Your task to perform on an android device: toggle location history Image 0: 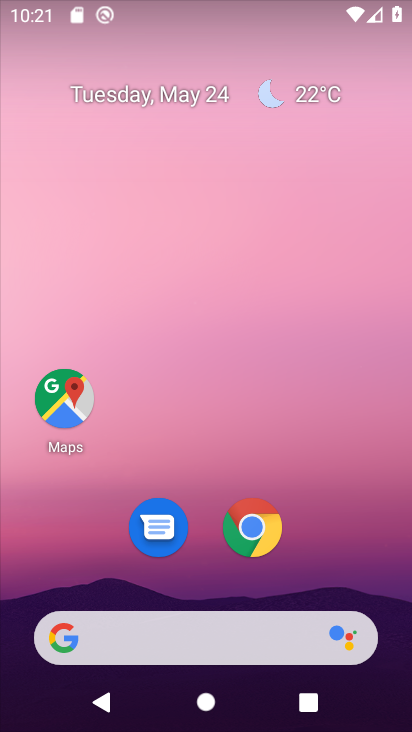
Step 0: press home button
Your task to perform on an android device: toggle location history Image 1: 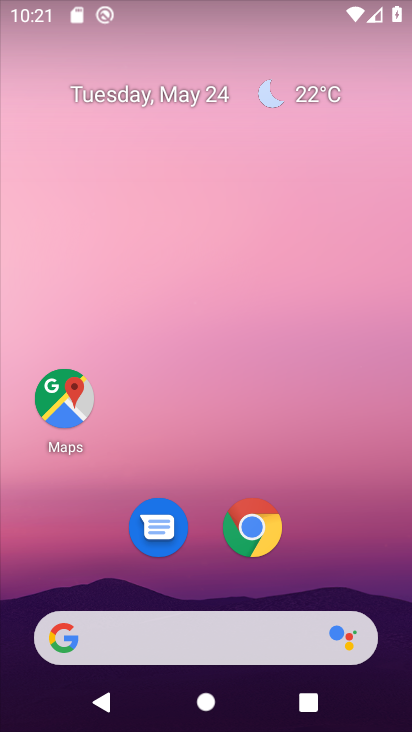
Step 1: click (75, 398)
Your task to perform on an android device: toggle location history Image 2: 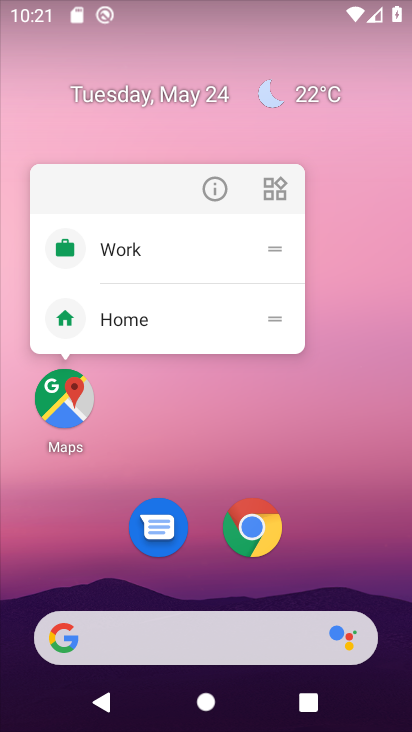
Step 2: click (75, 400)
Your task to perform on an android device: toggle location history Image 3: 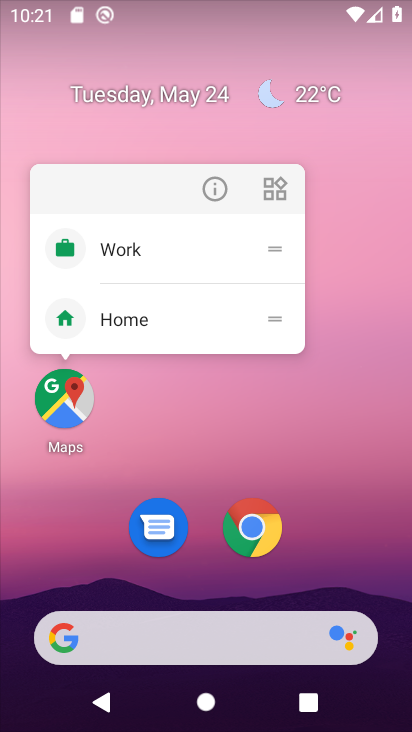
Step 3: click (69, 408)
Your task to perform on an android device: toggle location history Image 4: 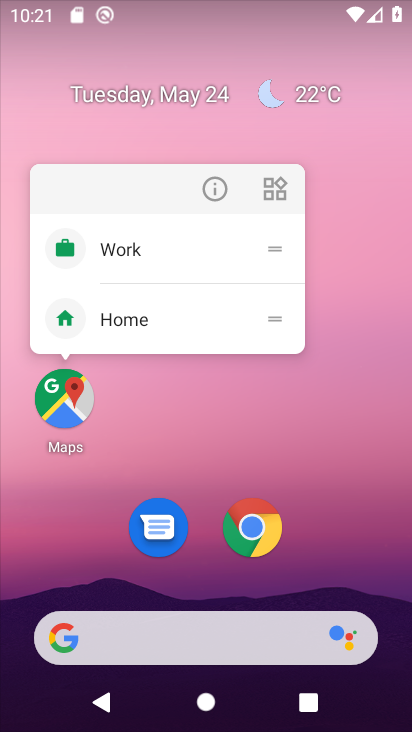
Step 4: click (61, 410)
Your task to perform on an android device: toggle location history Image 5: 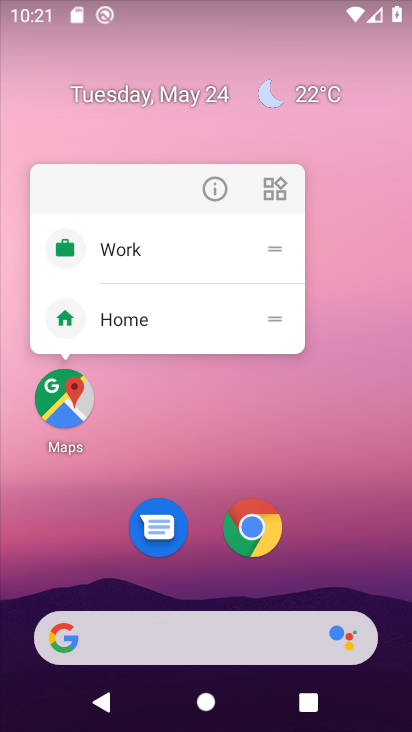
Step 5: click (70, 403)
Your task to perform on an android device: toggle location history Image 6: 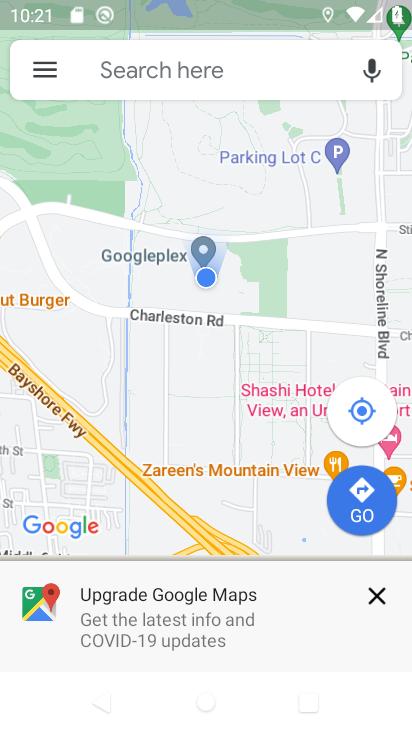
Step 6: click (41, 67)
Your task to perform on an android device: toggle location history Image 7: 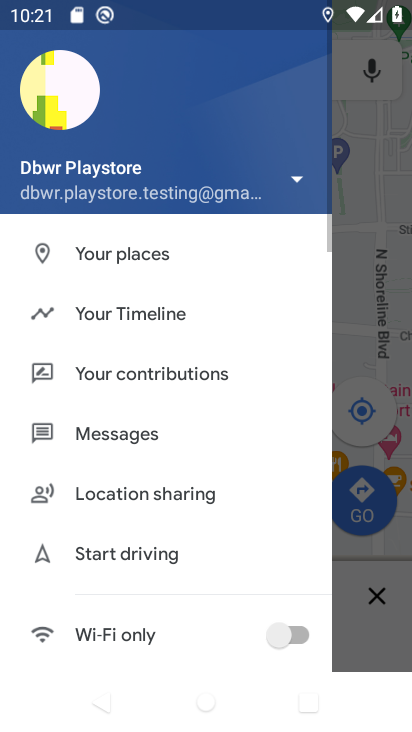
Step 7: click (159, 317)
Your task to perform on an android device: toggle location history Image 8: 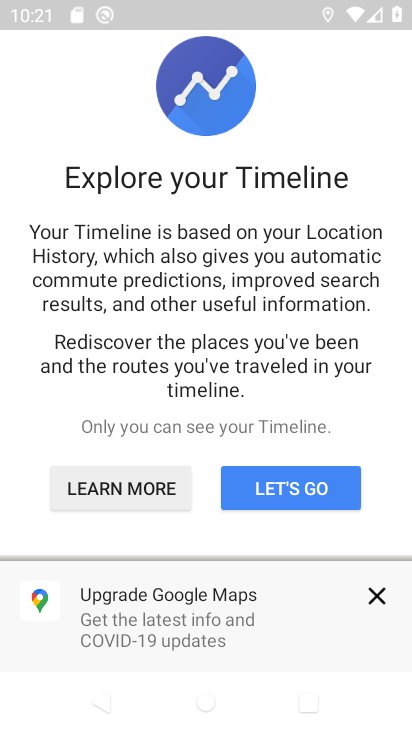
Step 8: click (284, 487)
Your task to perform on an android device: toggle location history Image 9: 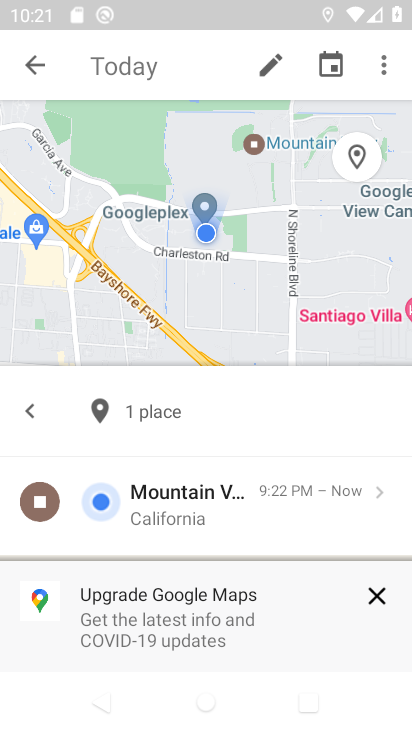
Step 9: click (381, 62)
Your task to perform on an android device: toggle location history Image 10: 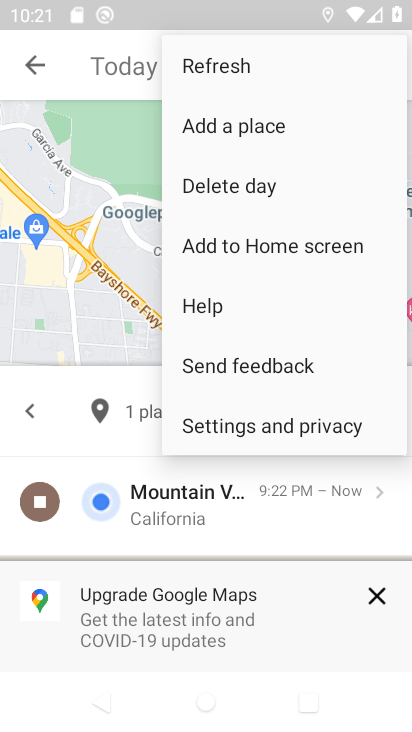
Step 10: click (263, 420)
Your task to perform on an android device: toggle location history Image 11: 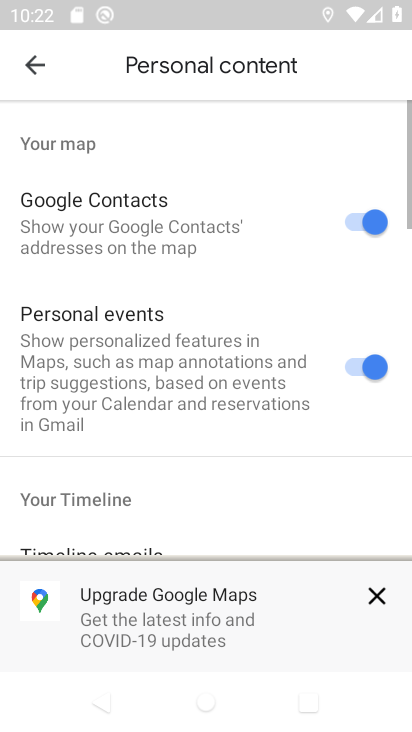
Step 11: drag from (193, 517) to (296, 16)
Your task to perform on an android device: toggle location history Image 12: 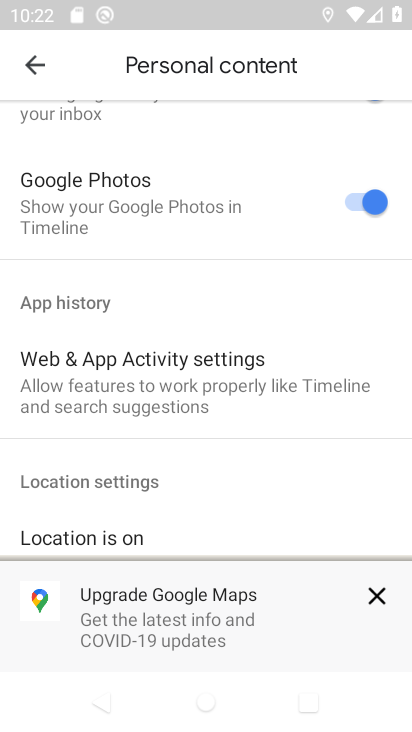
Step 12: drag from (236, 464) to (312, 102)
Your task to perform on an android device: toggle location history Image 13: 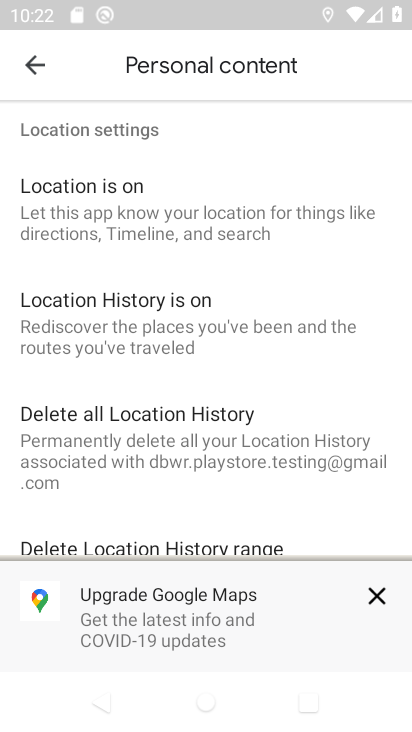
Step 13: click (188, 328)
Your task to perform on an android device: toggle location history Image 14: 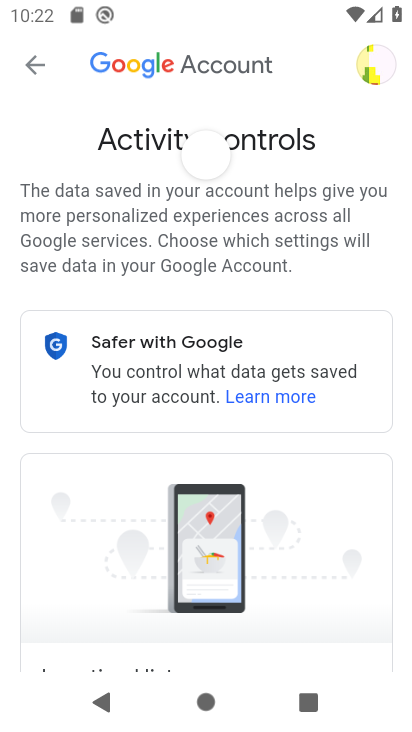
Step 14: drag from (265, 600) to (320, 87)
Your task to perform on an android device: toggle location history Image 15: 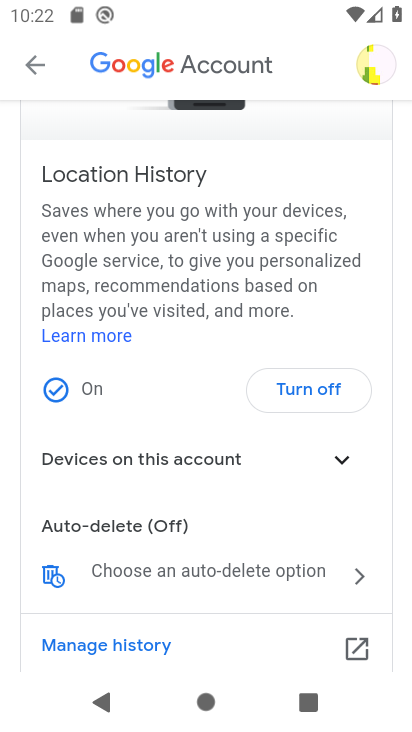
Step 15: click (317, 388)
Your task to perform on an android device: toggle location history Image 16: 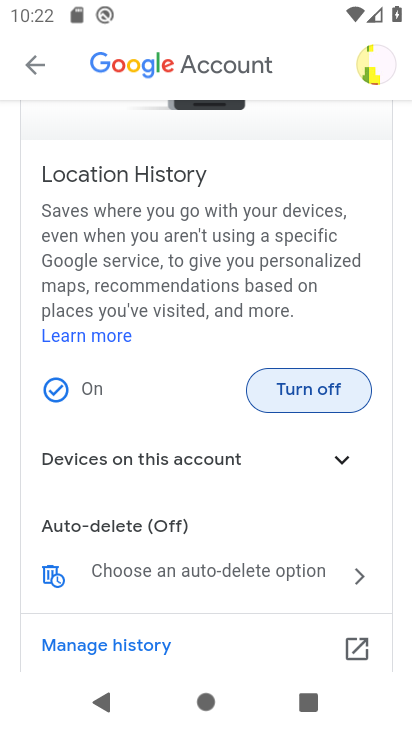
Step 16: click (314, 387)
Your task to perform on an android device: toggle location history Image 17: 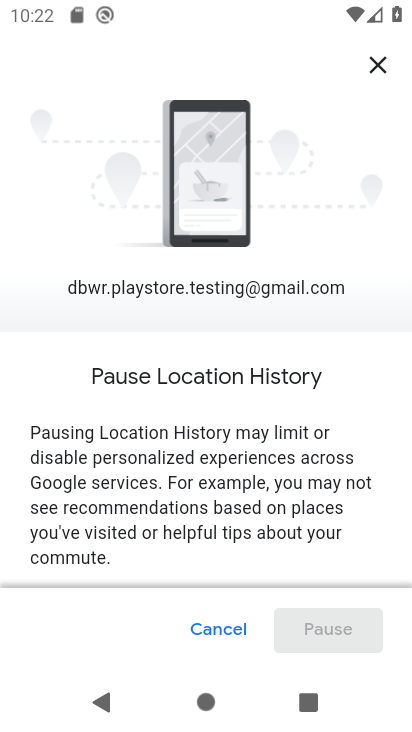
Step 17: drag from (227, 536) to (292, 14)
Your task to perform on an android device: toggle location history Image 18: 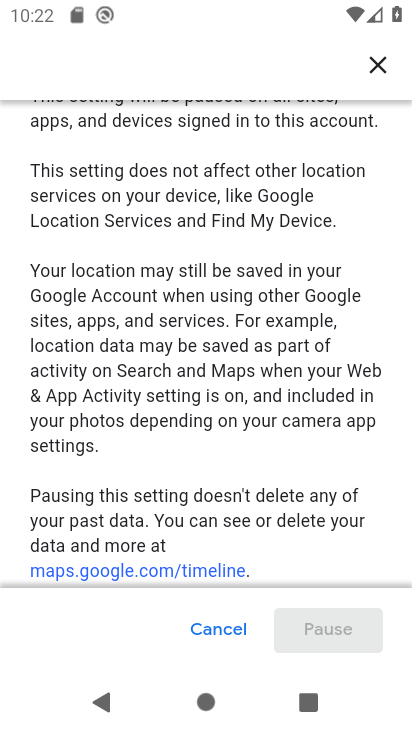
Step 18: drag from (290, 286) to (344, 48)
Your task to perform on an android device: toggle location history Image 19: 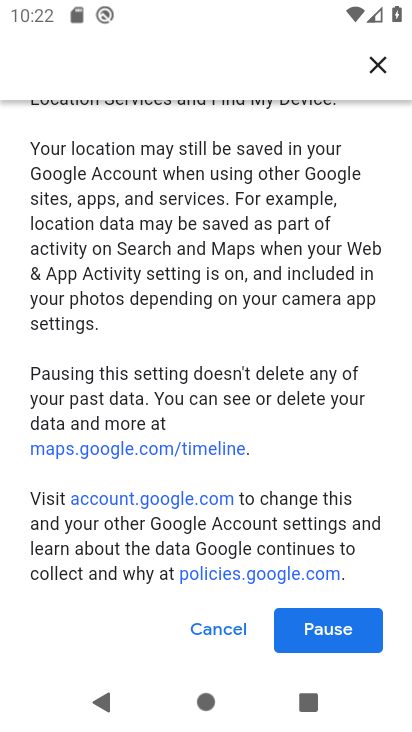
Step 19: click (332, 632)
Your task to perform on an android device: toggle location history Image 20: 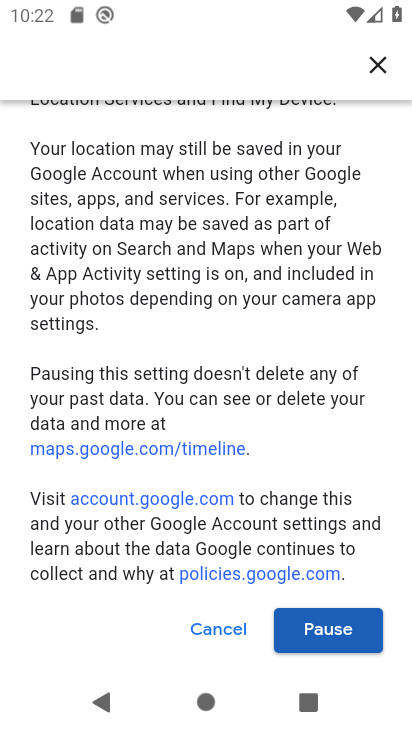
Step 20: click (338, 634)
Your task to perform on an android device: toggle location history Image 21: 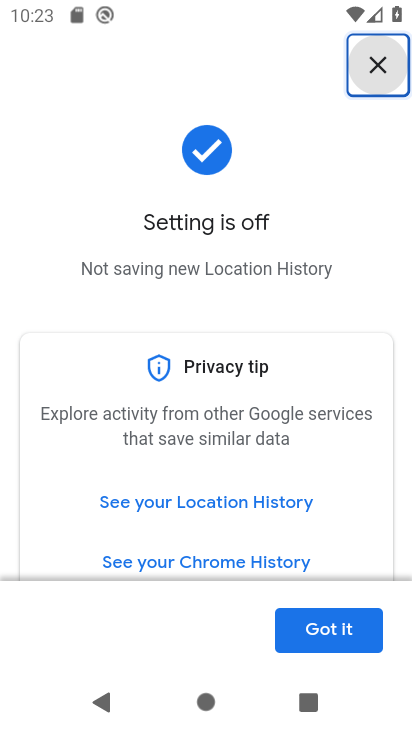
Step 21: click (327, 627)
Your task to perform on an android device: toggle location history Image 22: 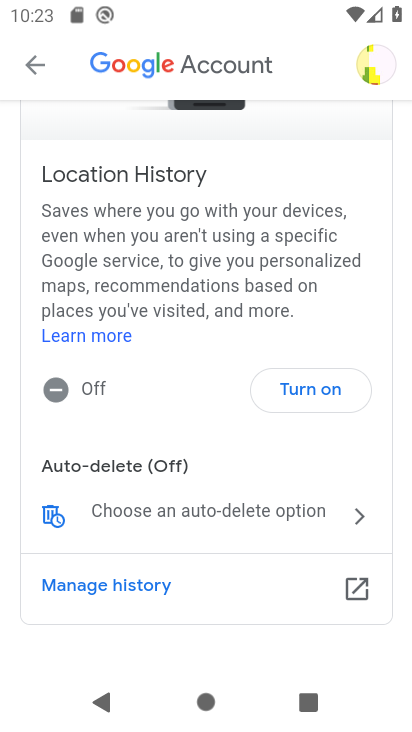
Step 22: task complete